Your task to perform on an android device: Do I have any events today? Image 0: 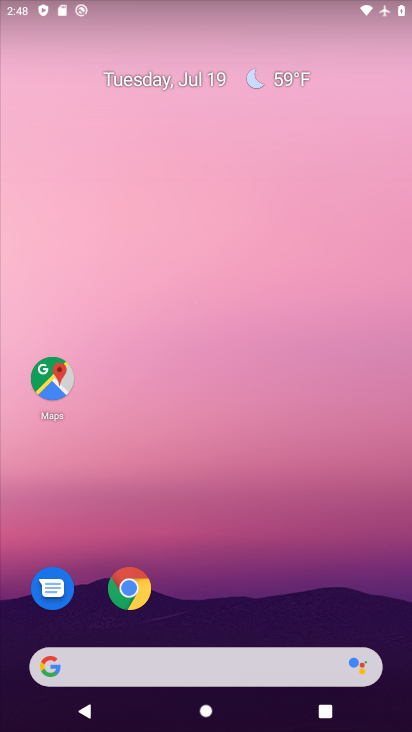
Step 0: press home button
Your task to perform on an android device: Do I have any events today? Image 1: 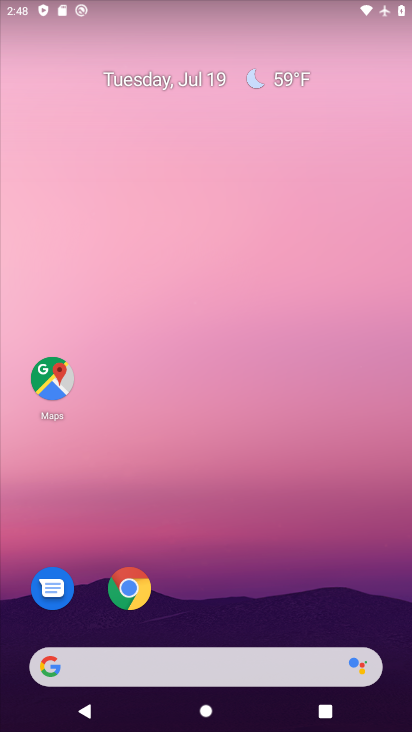
Step 1: drag from (180, 555) to (102, 73)
Your task to perform on an android device: Do I have any events today? Image 2: 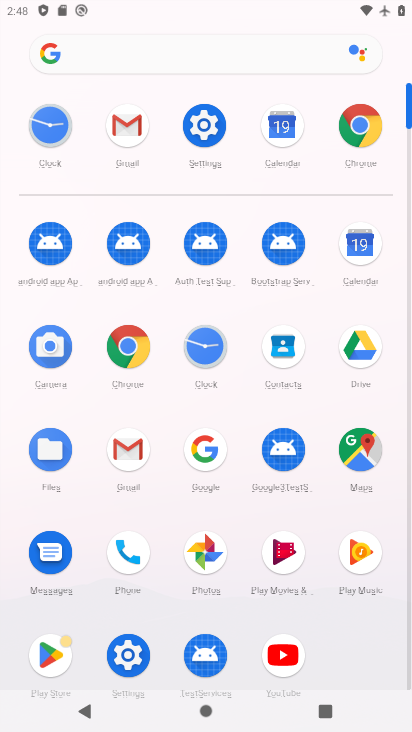
Step 2: click (352, 259)
Your task to perform on an android device: Do I have any events today? Image 3: 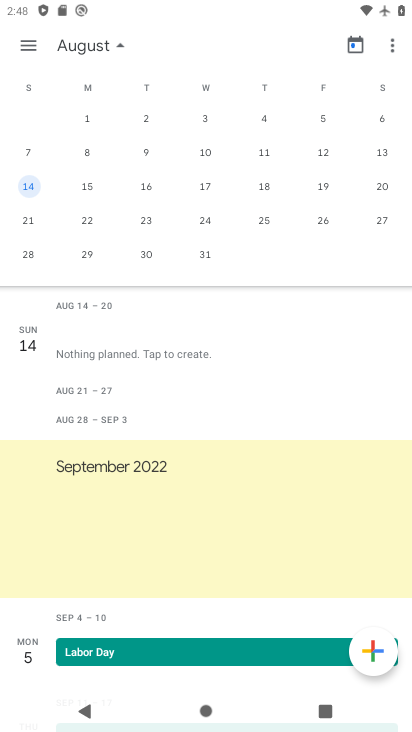
Step 3: drag from (58, 199) to (401, 176)
Your task to perform on an android device: Do I have any events today? Image 4: 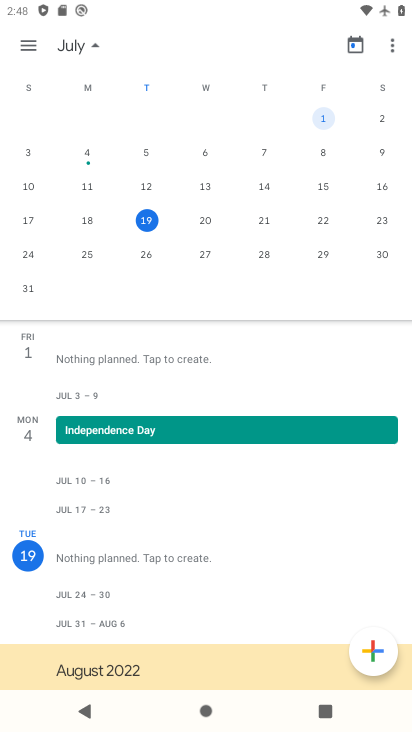
Step 4: click (146, 211)
Your task to perform on an android device: Do I have any events today? Image 5: 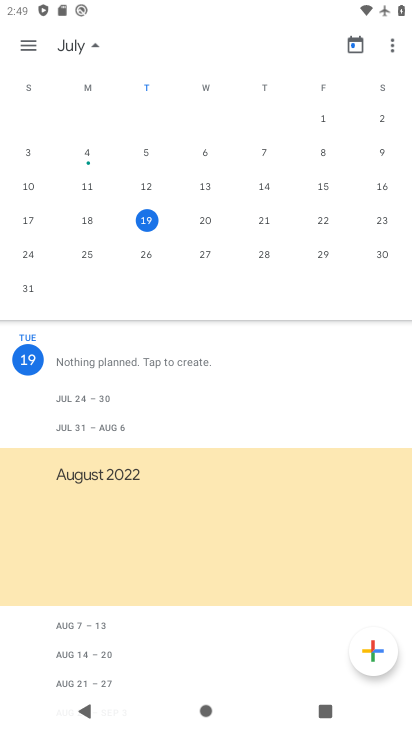
Step 5: task complete